Your task to perform on an android device: change the clock display to digital Image 0: 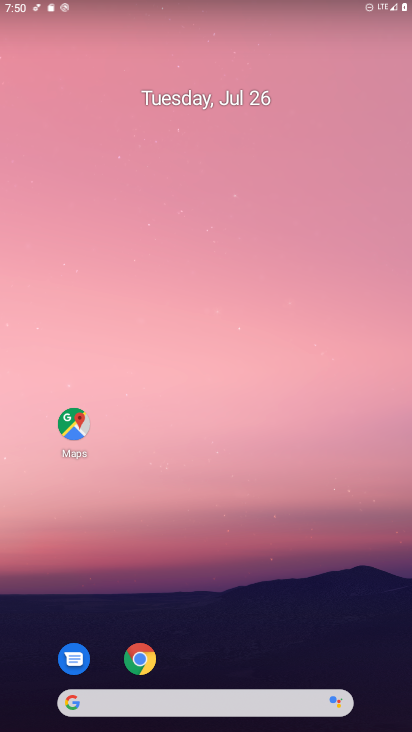
Step 0: drag from (195, 657) to (164, 62)
Your task to perform on an android device: change the clock display to digital Image 1: 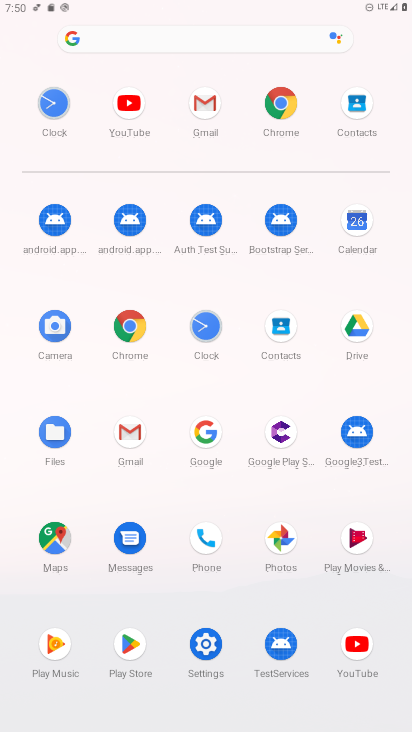
Step 1: click (179, 318)
Your task to perform on an android device: change the clock display to digital Image 2: 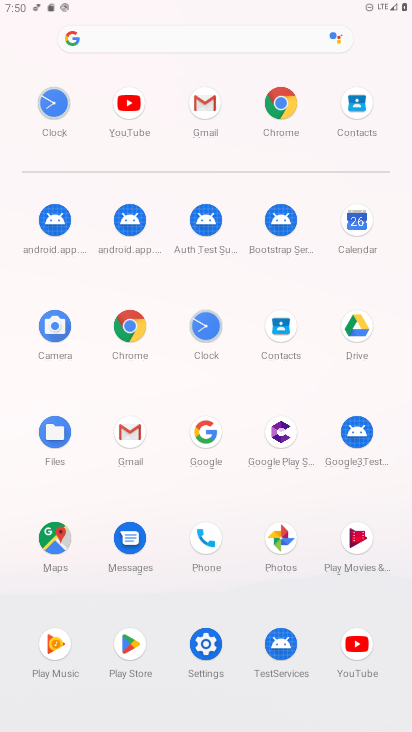
Step 2: click (193, 316)
Your task to perform on an android device: change the clock display to digital Image 3: 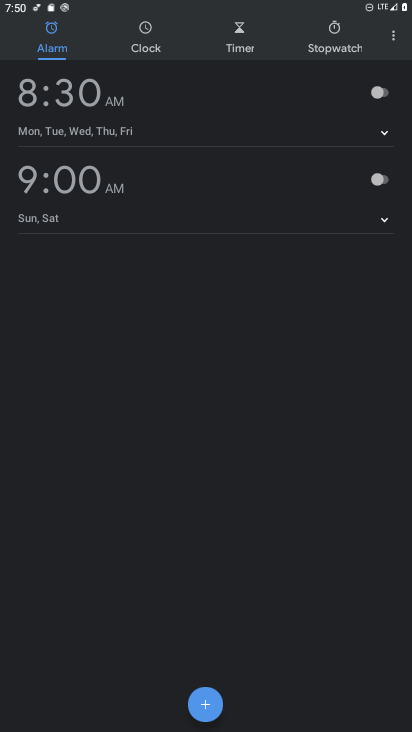
Step 3: click (399, 32)
Your task to perform on an android device: change the clock display to digital Image 4: 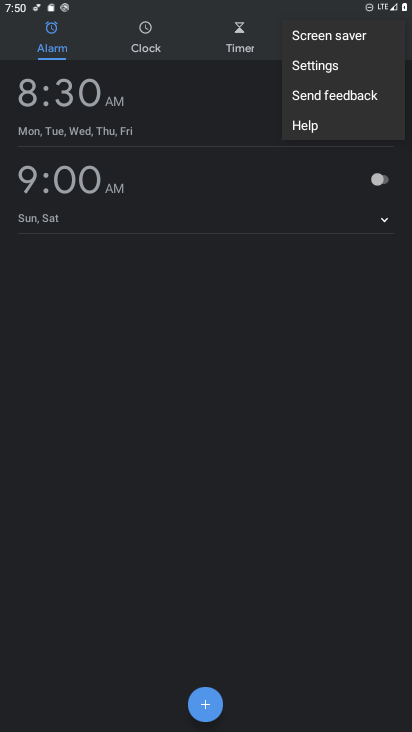
Step 4: click (322, 64)
Your task to perform on an android device: change the clock display to digital Image 5: 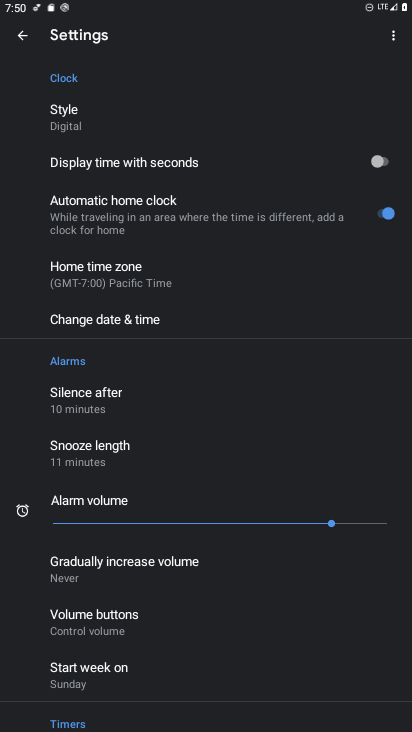
Step 5: click (63, 122)
Your task to perform on an android device: change the clock display to digital Image 6: 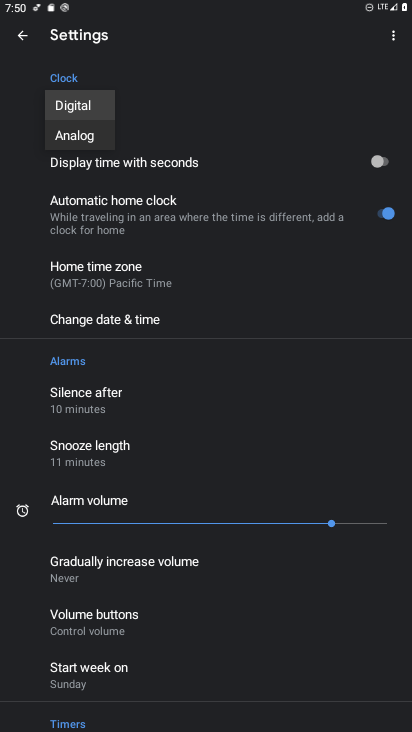
Step 6: click (81, 107)
Your task to perform on an android device: change the clock display to digital Image 7: 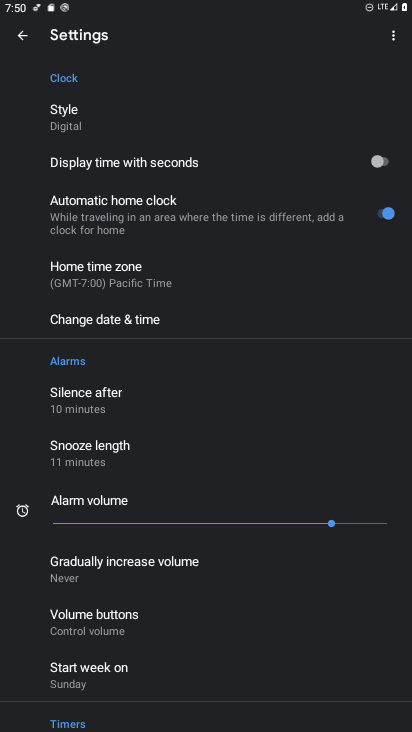
Step 7: task complete